Your task to perform on an android device: open app "Lyft - Rideshare, Bikes, Scooters & Transit" (install if not already installed) and enter user name: "deliberating@gmail.com" and password: "preyed" Image 0: 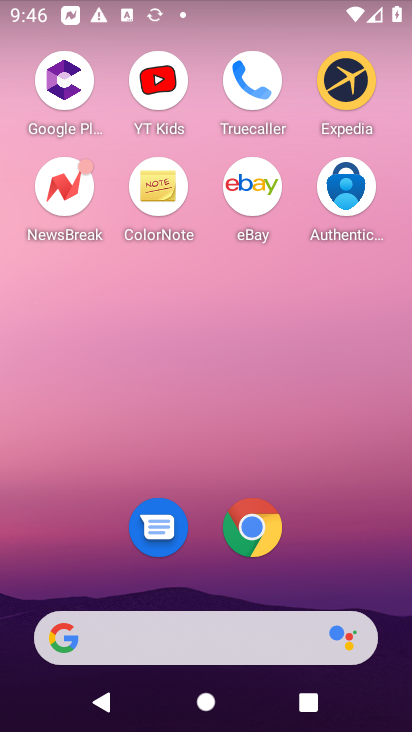
Step 0: drag from (192, 493) to (200, 8)
Your task to perform on an android device: open app "Lyft - Rideshare, Bikes, Scooters & Transit" (install if not already installed) and enter user name: "deliberating@gmail.com" and password: "preyed" Image 1: 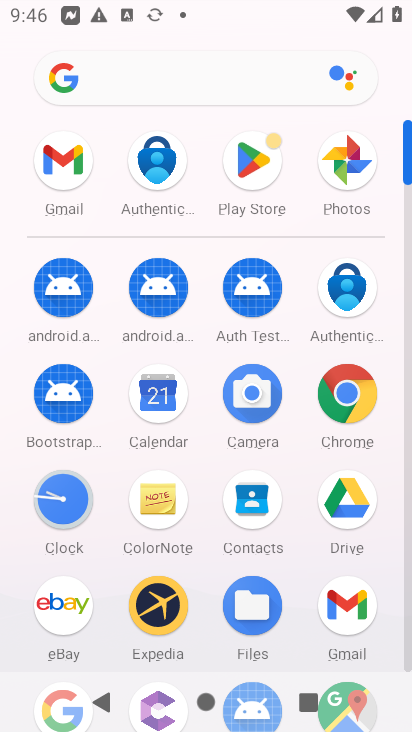
Step 1: click (253, 170)
Your task to perform on an android device: open app "Lyft - Rideshare, Bikes, Scooters & Transit" (install if not already installed) and enter user name: "deliberating@gmail.com" and password: "preyed" Image 2: 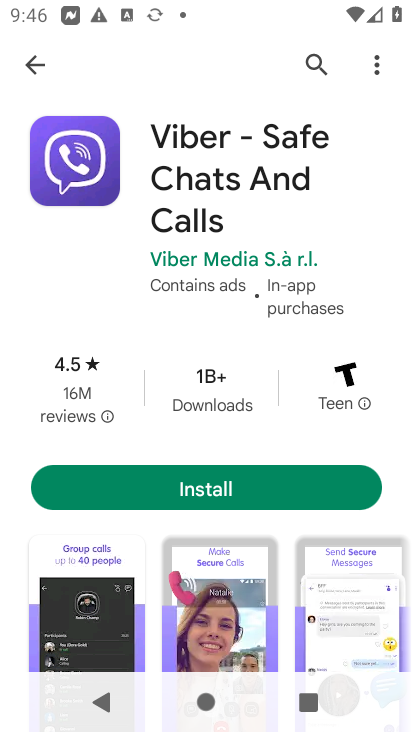
Step 2: click (39, 62)
Your task to perform on an android device: open app "Lyft - Rideshare, Bikes, Scooters & Transit" (install if not already installed) and enter user name: "deliberating@gmail.com" and password: "preyed" Image 3: 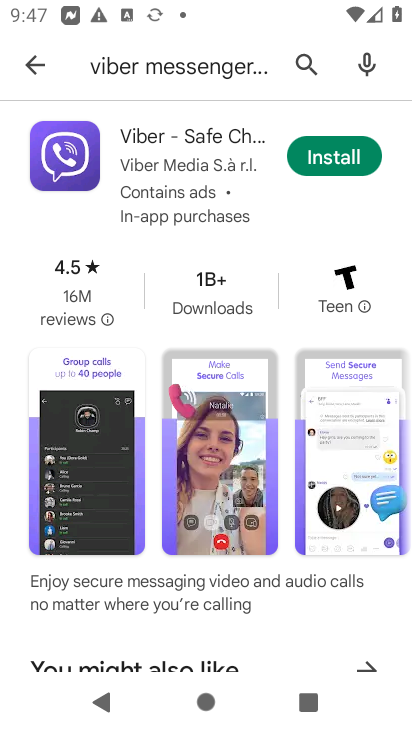
Step 3: click (165, 75)
Your task to perform on an android device: open app "Lyft - Rideshare, Bikes, Scooters & Transit" (install if not already installed) and enter user name: "deliberating@gmail.com" and password: "preyed" Image 4: 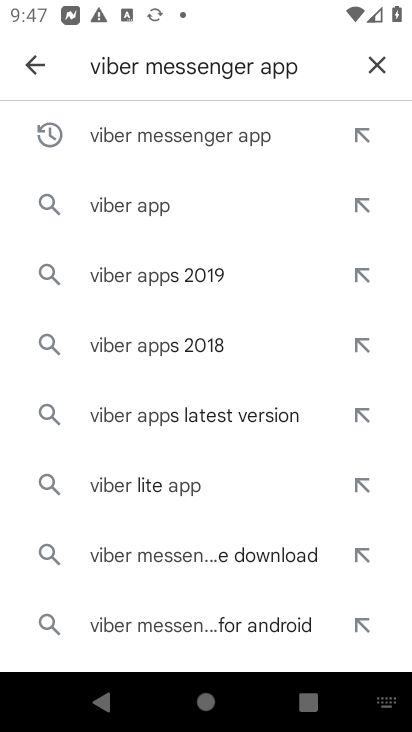
Step 4: click (375, 59)
Your task to perform on an android device: open app "Lyft - Rideshare, Bikes, Scooters & Transit" (install if not already installed) and enter user name: "deliberating@gmail.com" and password: "preyed" Image 5: 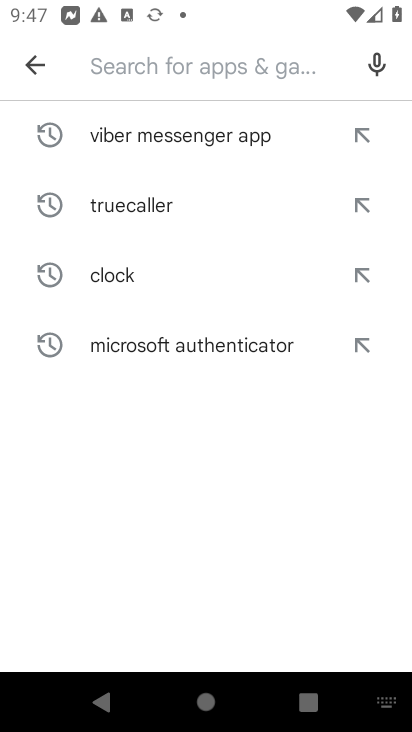
Step 5: type "lyft"
Your task to perform on an android device: open app "Lyft - Rideshare, Bikes, Scooters & Transit" (install if not already installed) and enter user name: "deliberating@gmail.com" and password: "preyed" Image 6: 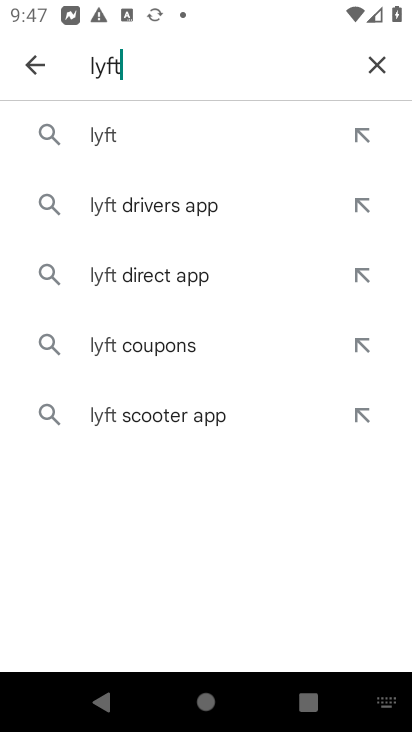
Step 6: click (136, 132)
Your task to perform on an android device: open app "Lyft - Rideshare, Bikes, Scooters & Transit" (install if not already installed) and enter user name: "deliberating@gmail.com" and password: "preyed" Image 7: 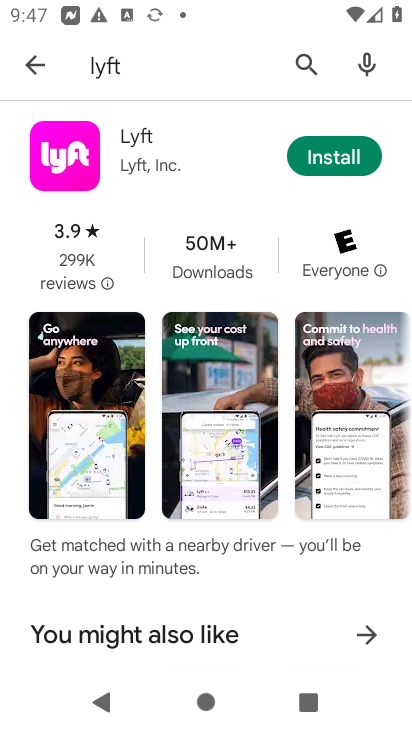
Step 7: click (336, 154)
Your task to perform on an android device: open app "Lyft - Rideshare, Bikes, Scooters & Transit" (install if not already installed) and enter user name: "deliberating@gmail.com" and password: "preyed" Image 8: 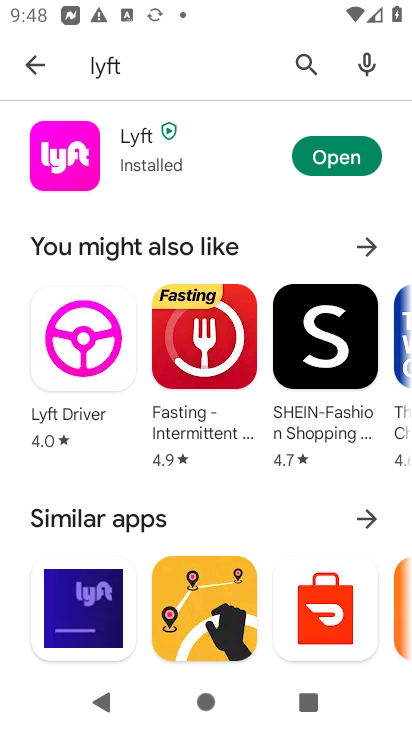
Step 8: click (347, 149)
Your task to perform on an android device: open app "Lyft - Rideshare, Bikes, Scooters & Transit" (install if not already installed) and enter user name: "deliberating@gmail.com" and password: "preyed" Image 9: 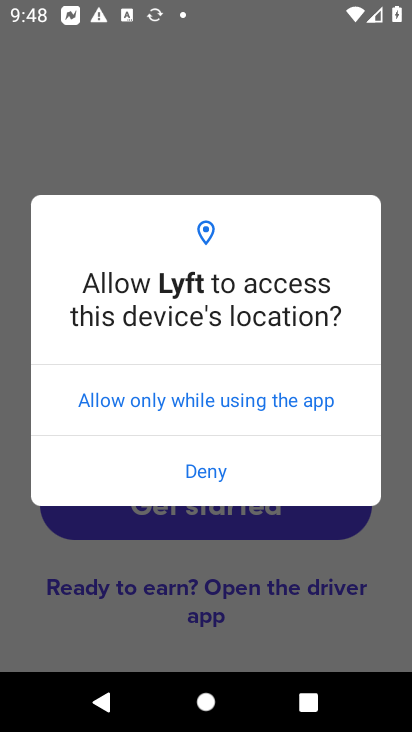
Step 9: click (255, 392)
Your task to perform on an android device: open app "Lyft - Rideshare, Bikes, Scooters & Transit" (install if not already installed) and enter user name: "deliberating@gmail.com" and password: "preyed" Image 10: 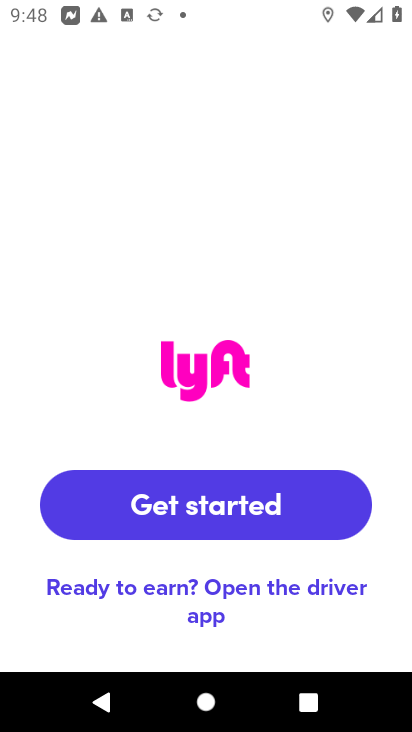
Step 10: click (251, 500)
Your task to perform on an android device: open app "Lyft - Rideshare, Bikes, Scooters & Transit" (install if not already installed) and enter user name: "deliberating@gmail.com" and password: "preyed" Image 11: 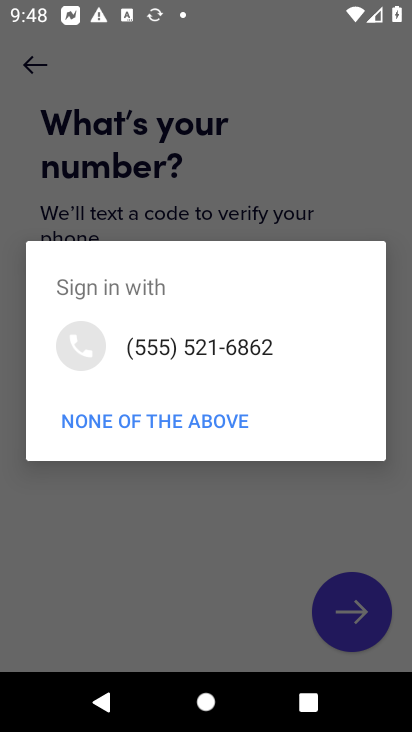
Step 11: click (223, 349)
Your task to perform on an android device: open app "Lyft - Rideshare, Bikes, Scooters & Transit" (install if not already installed) and enter user name: "deliberating@gmail.com" and password: "preyed" Image 12: 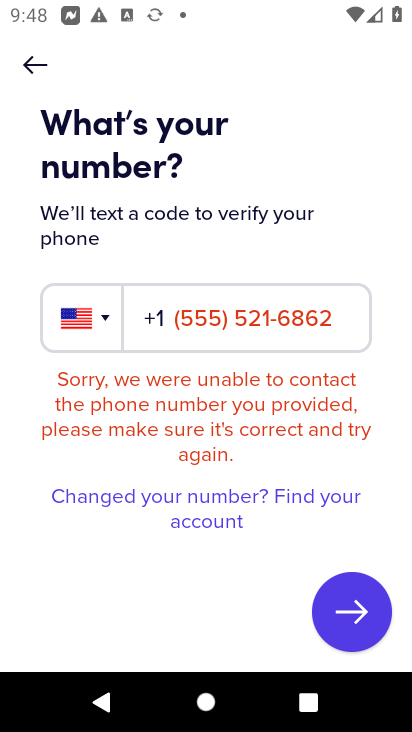
Step 12: click (232, 504)
Your task to perform on an android device: open app "Lyft - Rideshare, Bikes, Scooters & Transit" (install if not already installed) and enter user name: "deliberating@gmail.com" and password: "preyed" Image 13: 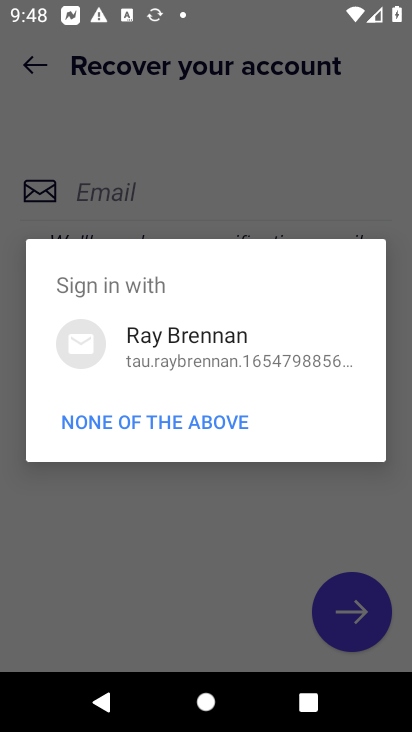
Step 13: click (227, 364)
Your task to perform on an android device: open app "Lyft - Rideshare, Bikes, Scooters & Transit" (install if not already installed) and enter user name: "deliberating@gmail.com" and password: "preyed" Image 14: 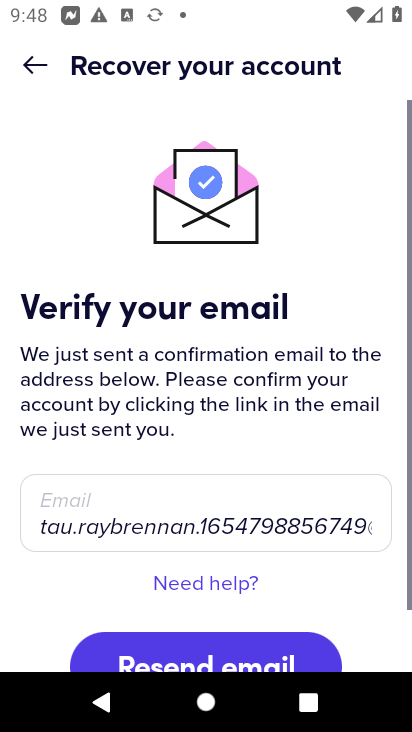
Step 14: task complete